Your task to perform on an android device: Go to internet settings Image 0: 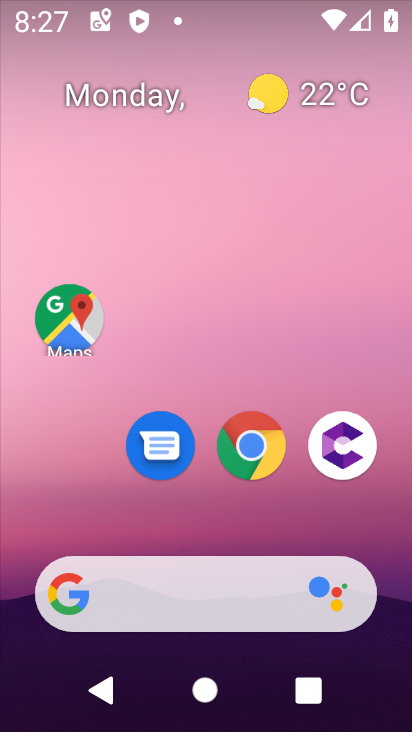
Step 0: drag from (260, 352) to (177, 111)
Your task to perform on an android device: Go to internet settings Image 1: 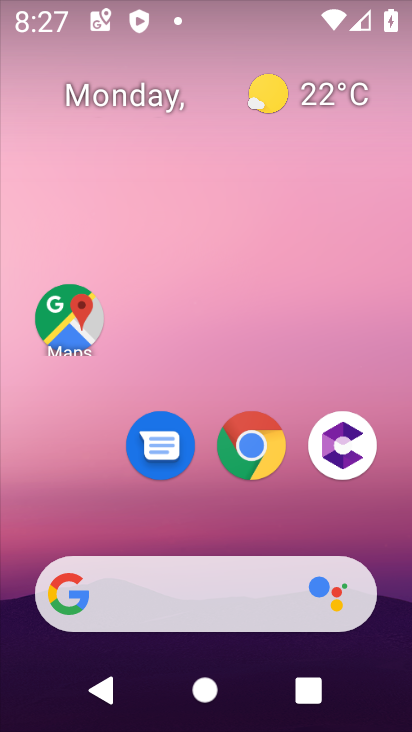
Step 1: drag from (215, 349) to (124, 1)
Your task to perform on an android device: Go to internet settings Image 2: 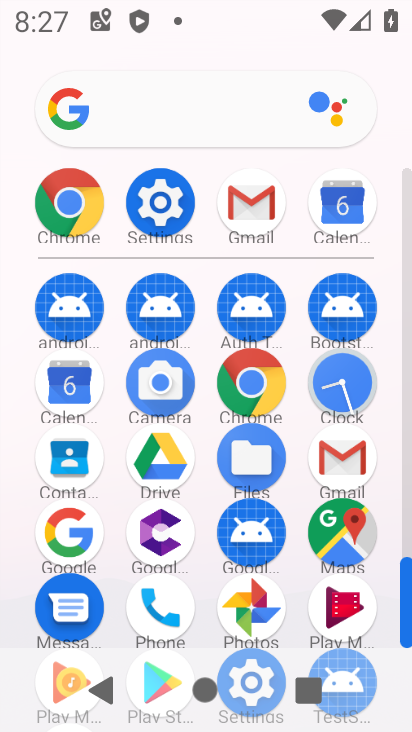
Step 2: click (153, 207)
Your task to perform on an android device: Go to internet settings Image 3: 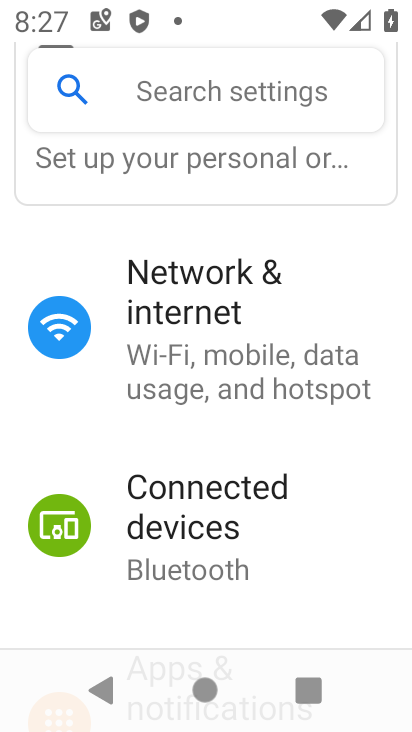
Step 3: click (176, 347)
Your task to perform on an android device: Go to internet settings Image 4: 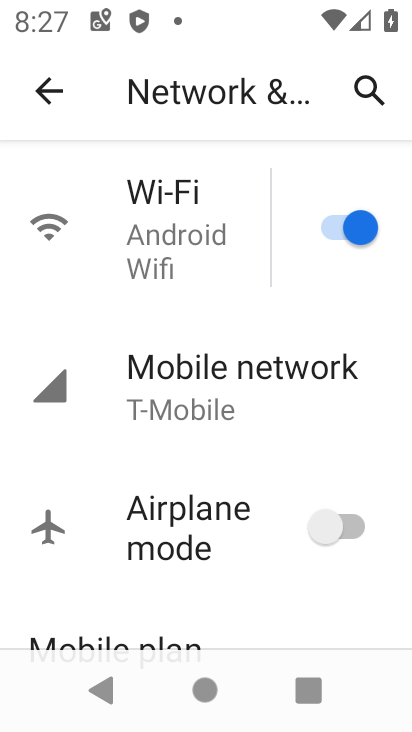
Step 4: task complete